Your task to perform on an android device: toggle translation in the chrome app Image 0: 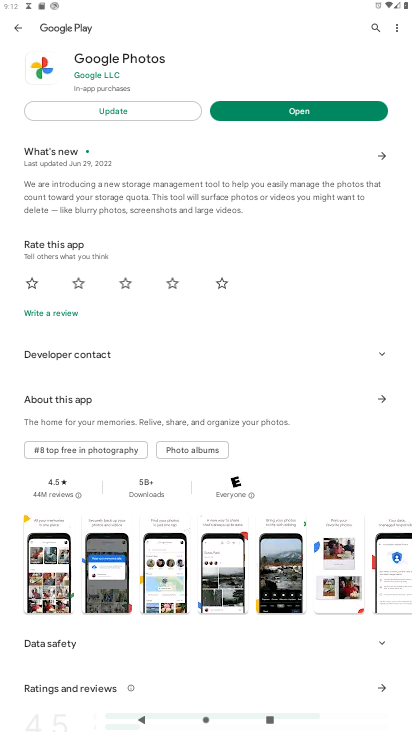
Step 0: press home button
Your task to perform on an android device: toggle translation in the chrome app Image 1: 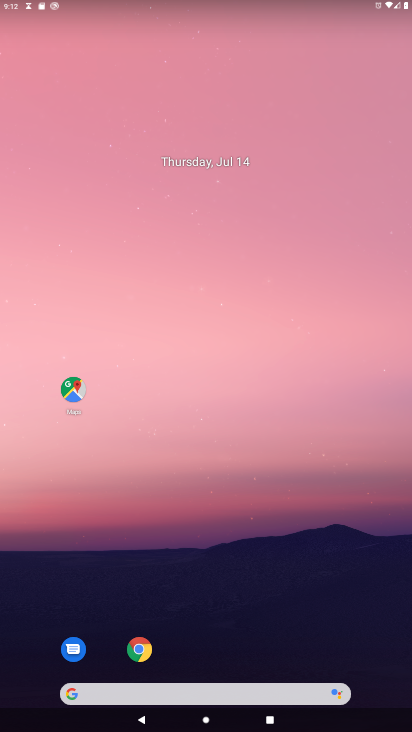
Step 1: drag from (215, 633) to (268, 51)
Your task to perform on an android device: toggle translation in the chrome app Image 2: 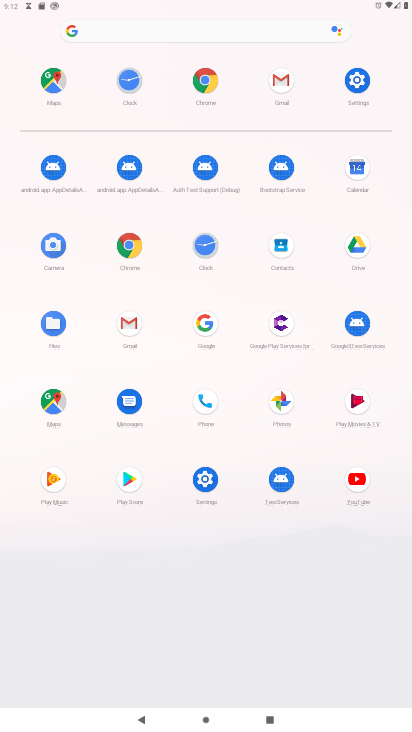
Step 2: click (128, 259)
Your task to perform on an android device: toggle translation in the chrome app Image 3: 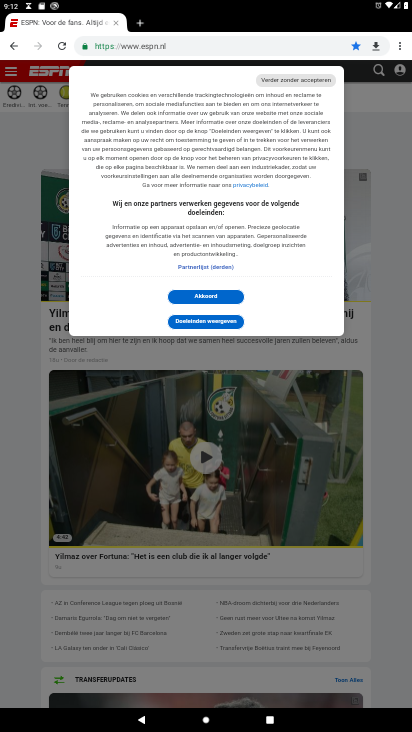
Step 3: click (400, 42)
Your task to perform on an android device: toggle translation in the chrome app Image 4: 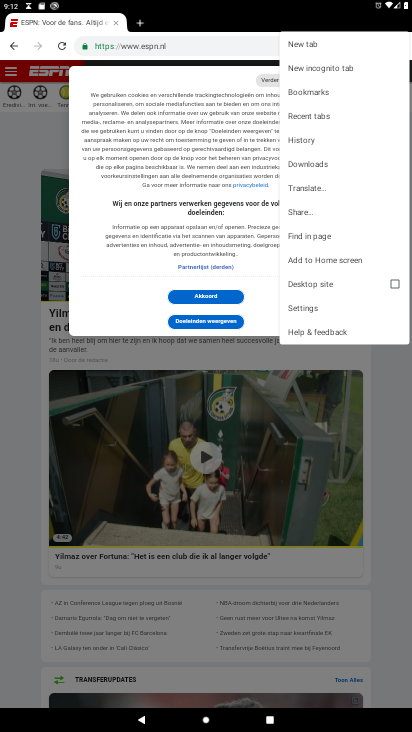
Step 4: click (301, 309)
Your task to perform on an android device: toggle translation in the chrome app Image 5: 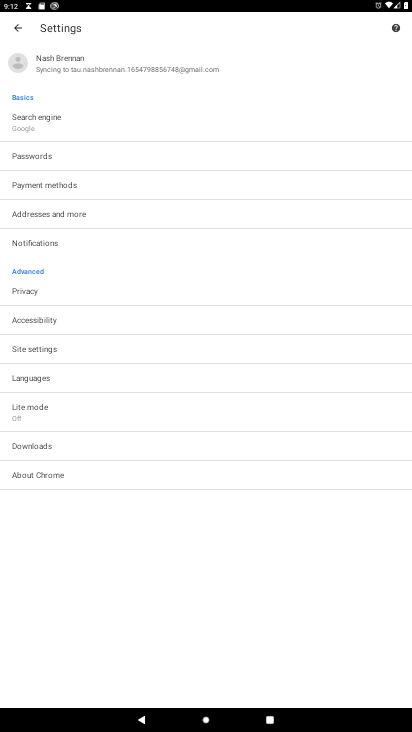
Step 5: click (56, 380)
Your task to perform on an android device: toggle translation in the chrome app Image 6: 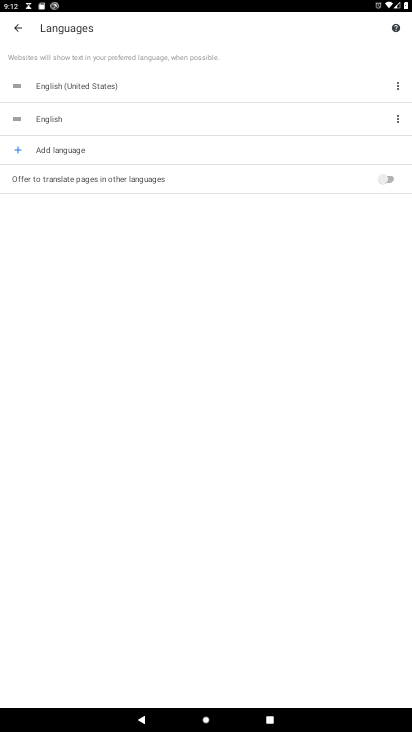
Step 6: click (399, 174)
Your task to perform on an android device: toggle translation in the chrome app Image 7: 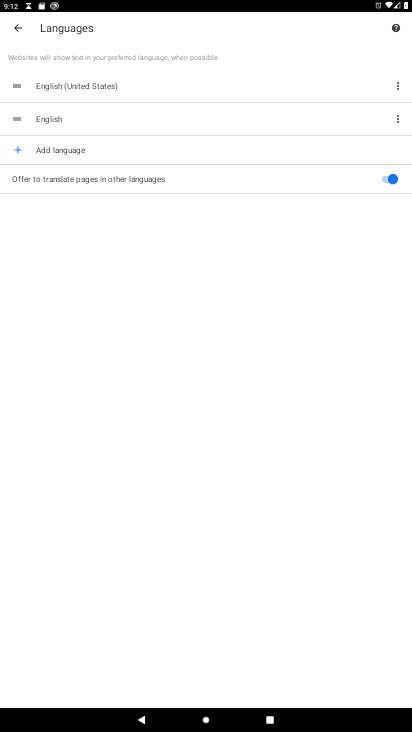
Step 7: task complete